Your task to perform on an android device: turn on the 24-hour format for clock Image 0: 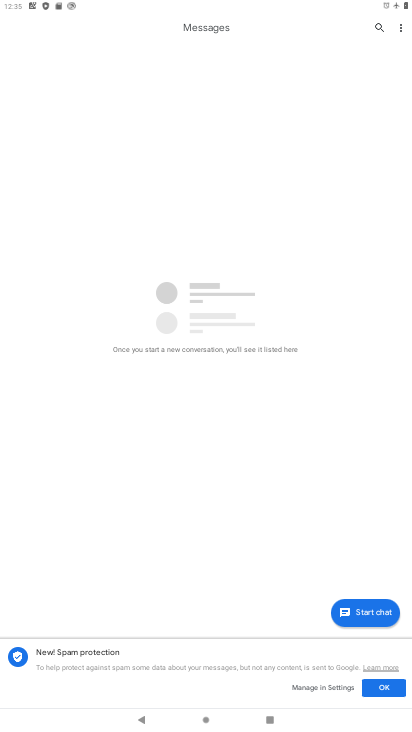
Step 0: press home button
Your task to perform on an android device: turn on the 24-hour format for clock Image 1: 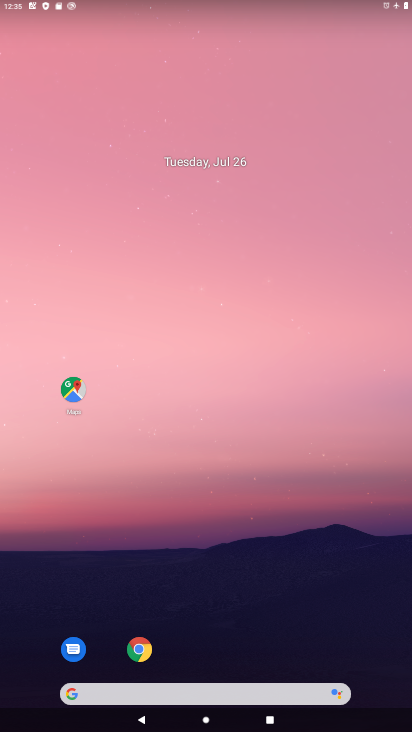
Step 1: drag from (186, 706) to (172, 99)
Your task to perform on an android device: turn on the 24-hour format for clock Image 2: 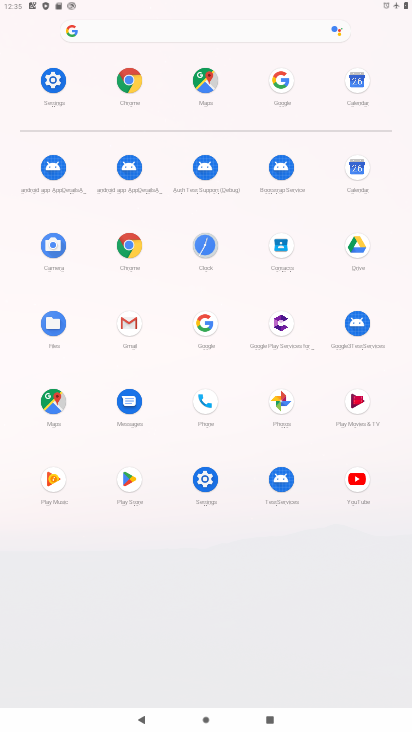
Step 2: click (202, 242)
Your task to perform on an android device: turn on the 24-hour format for clock Image 3: 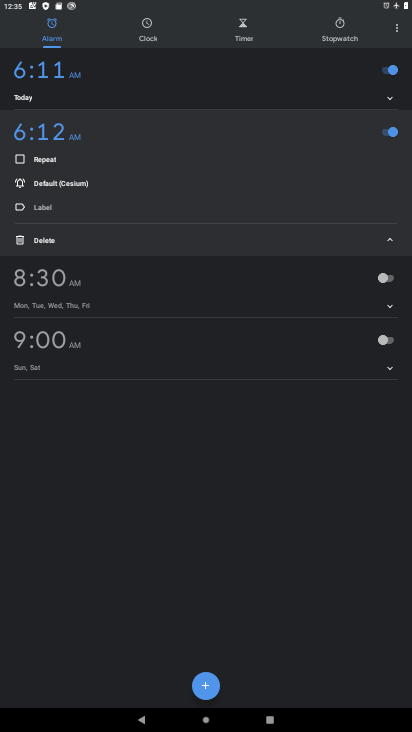
Step 3: click (397, 33)
Your task to perform on an android device: turn on the 24-hour format for clock Image 4: 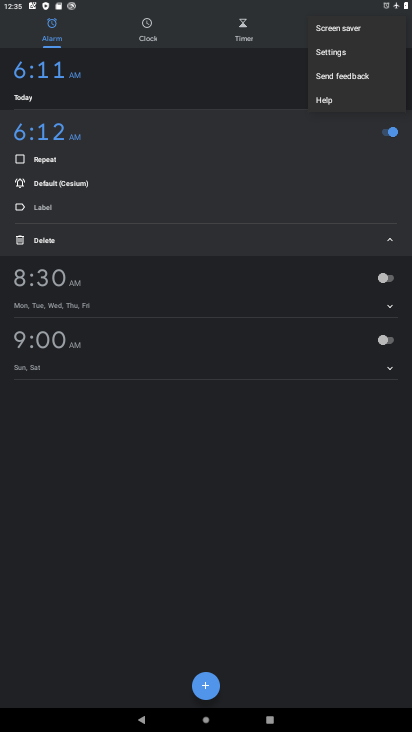
Step 4: click (333, 54)
Your task to perform on an android device: turn on the 24-hour format for clock Image 5: 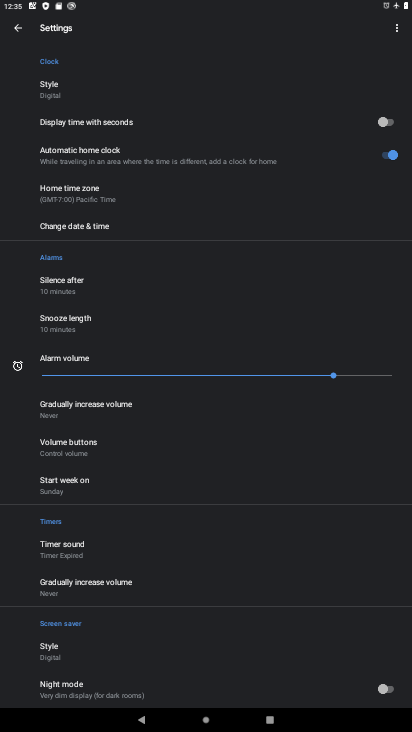
Step 5: click (113, 222)
Your task to perform on an android device: turn on the 24-hour format for clock Image 6: 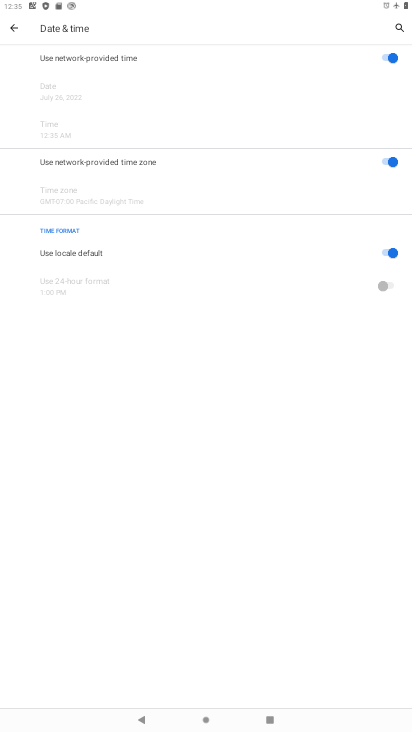
Step 6: click (388, 251)
Your task to perform on an android device: turn on the 24-hour format for clock Image 7: 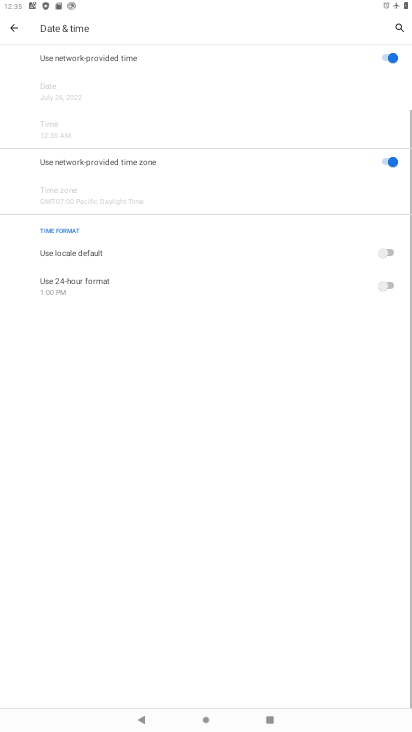
Step 7: click (390, 283)
Your task to perform on an android device: turn on the 24-hour format for clock Image 8: 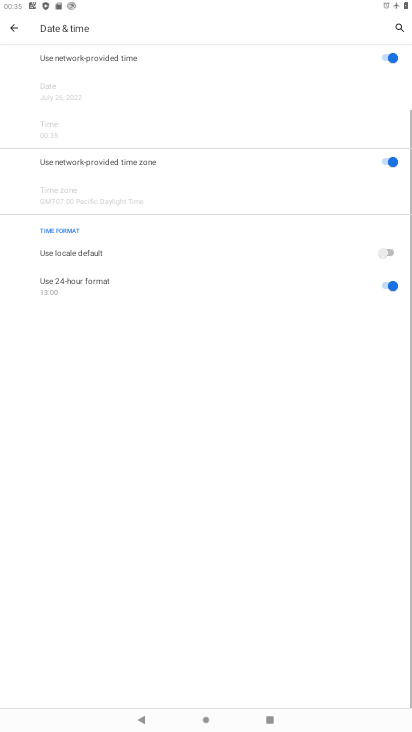
Step 8: task complete